Your task to perform on an android device: toggle sleep mode Image 0: 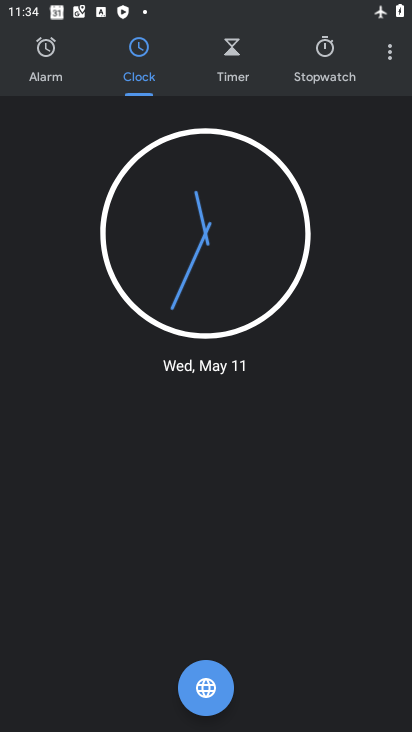
Step 0: press home button
Your task to perform on an android device: toggle sleep mode Image 1: 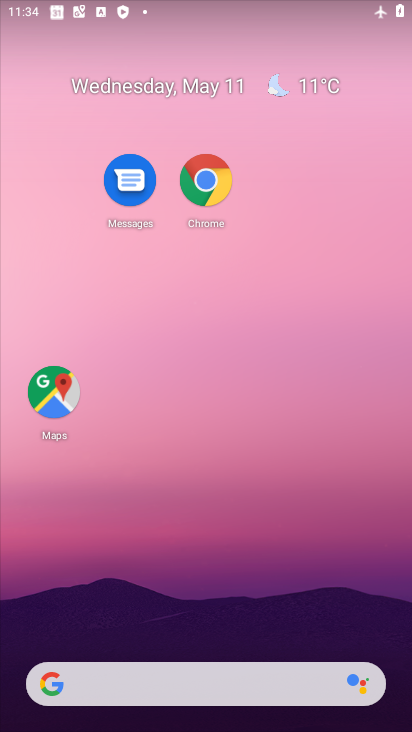
Step 1: task complete